Your task to perform on an android device: set an alarm Image 0: 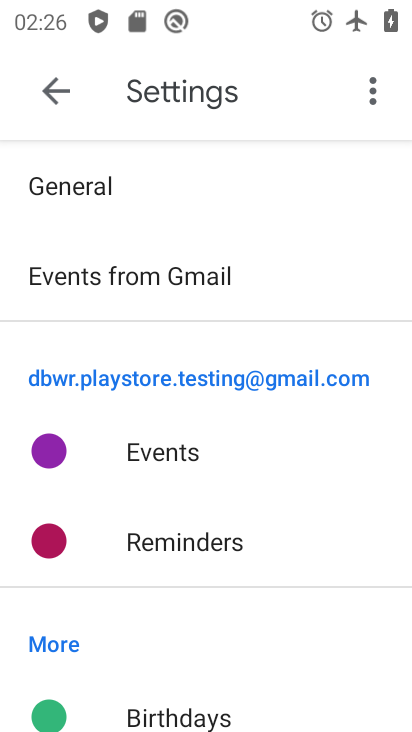
Step 0: press home button
Your task to perform on an android device: set an alarm Image 1: 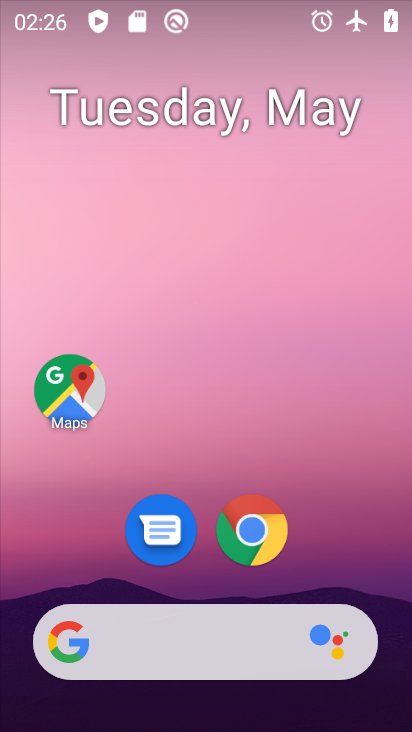
Step 1: drag from (209, 585) to (229, 175)
Your task to perform on an android device: set an alarm Image 2: 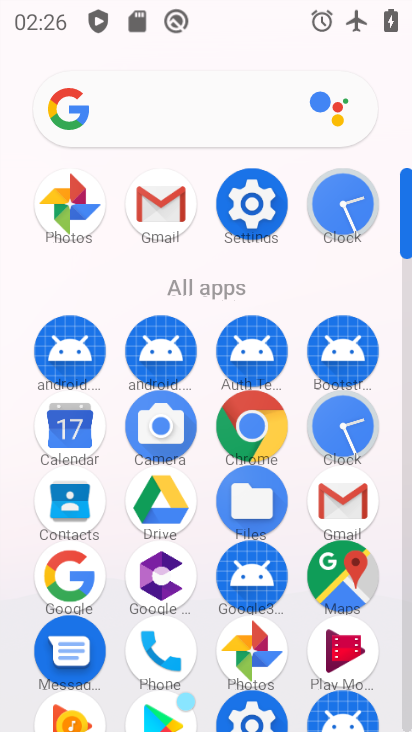
Step 2: click (327, 204)
Your task to perform on an android device: set an alarm Image 3: 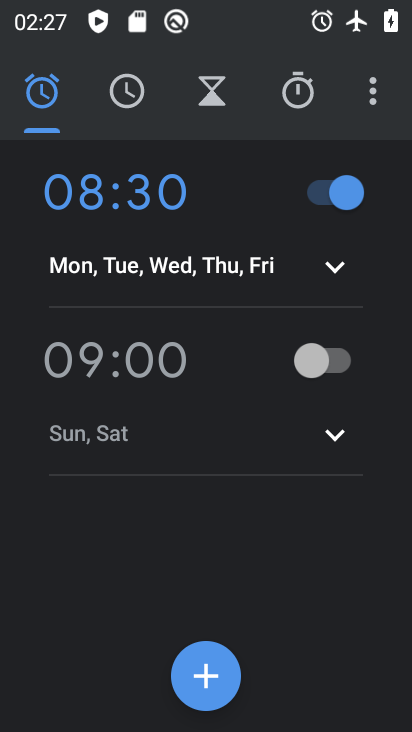
Step 3: task complete